Your task to perform on an android device: Go to accessibility settings Image 0: 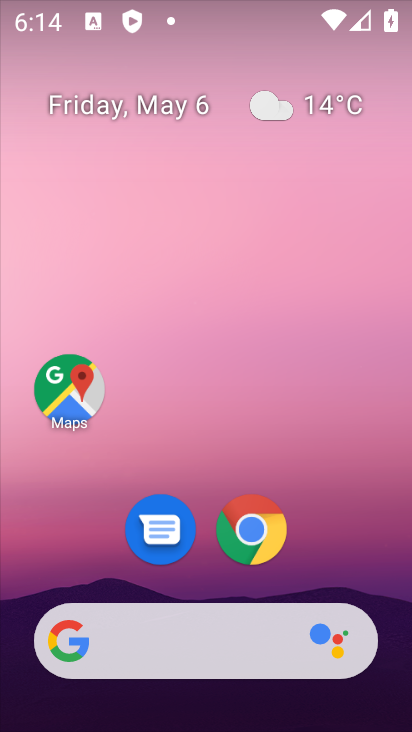
Step 0: drag from (352, 558) to (231, 62)
Your task to perform on an android device: Go to accessibility settings Image 1: 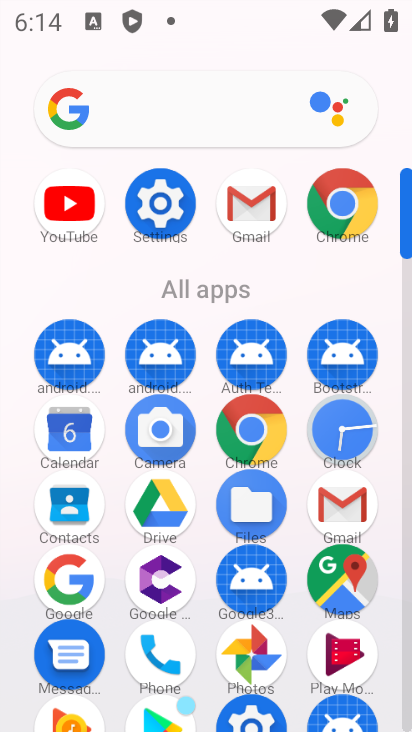
Step 1: click (169, 206)
Your task to perform on an android device: Go to accessibility settings Image 2: 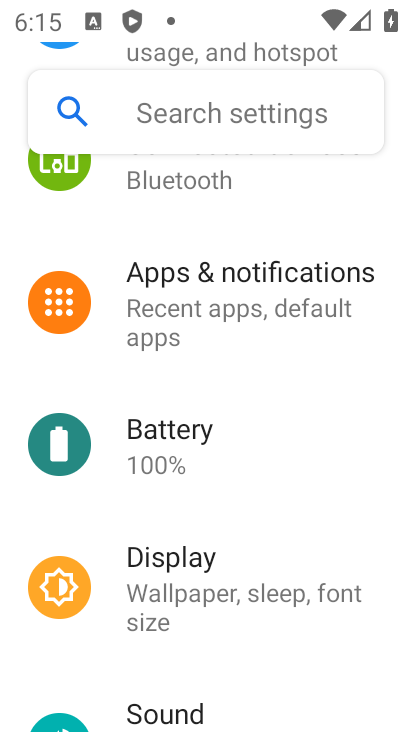
Step 2: drag from (260, 604) to (290, 222)
Your task to perform on an android device: Go to accessibility settings Image 3: 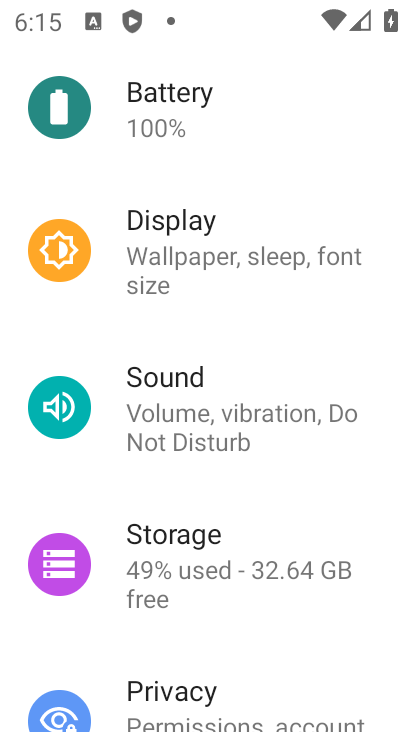
Step 3: drag from (241, 615) to (242, 223)
Your task to perform on an android device: Go to accessibility settings Image 4: 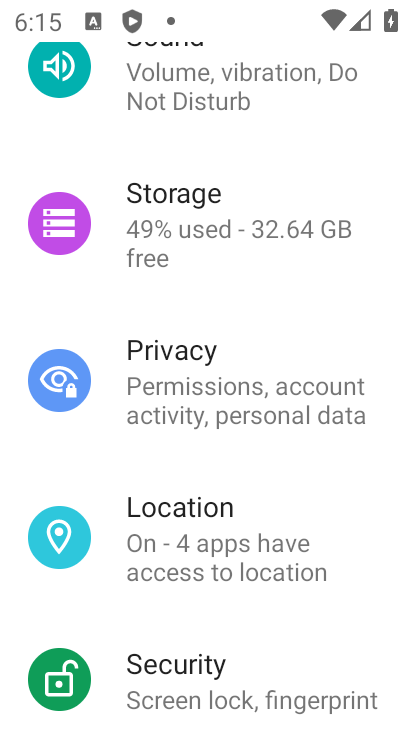
Step 4: drag from (258, 512) to (261, 154)
Your task to perform on an android device: Go to accessibility settings Image 5: 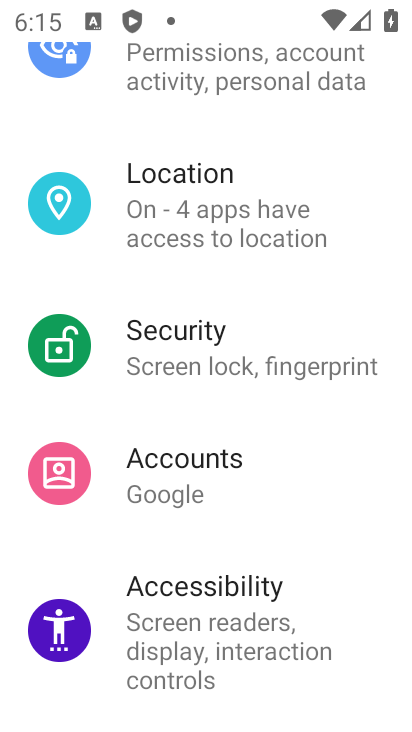
Step 5: click (206, 598)
Your task to perform on an android device: Go to accessibility settings Image 6: 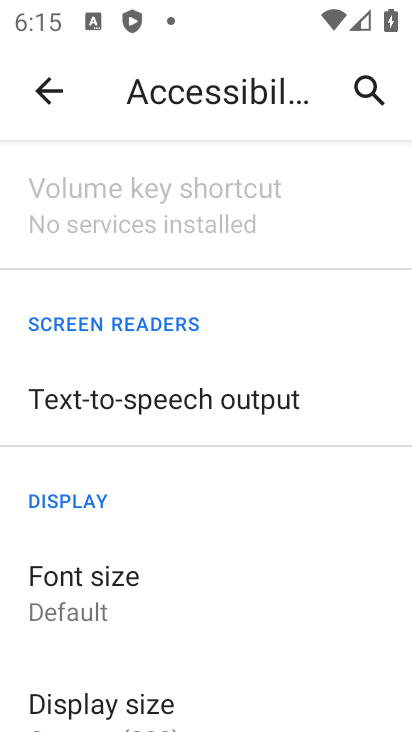
Step 6: task complete